Your task to perform on an android device: What's on my calendar tomorrow? Image 0: 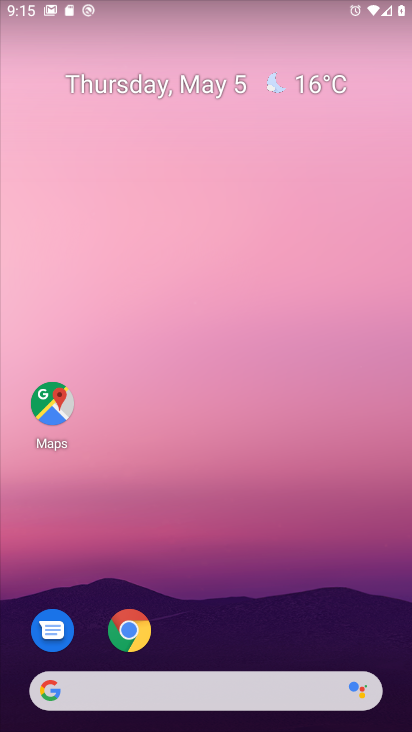
Step 0: drag from (254, 614) to (163, 142)
Your task to perform on an android device: What's on my calendar tomorrow? Image 1: 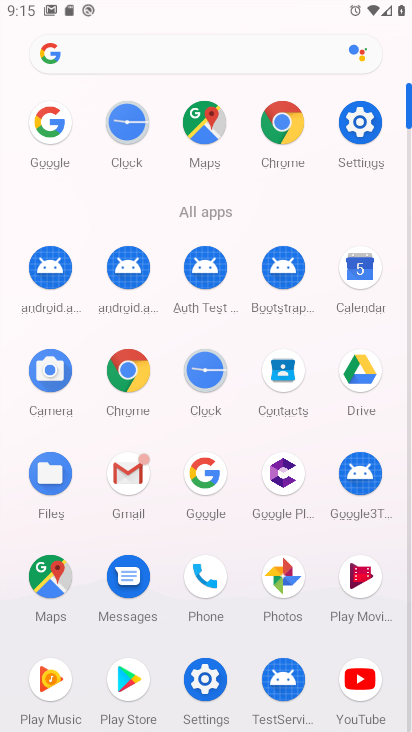
Step 1: click (367, 268)
Your task to perform on an android device: What's on my calendar tomorrow? Image 2: 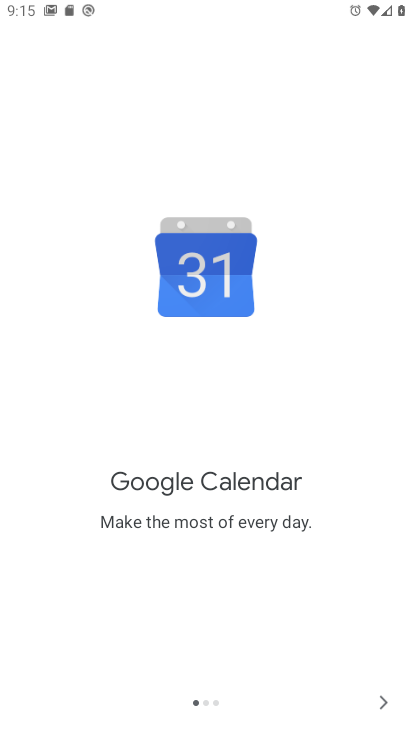
Step 2: click (377, 698)
Your task to perform on an android device: What's on my calendar tomorrow? Image 3: 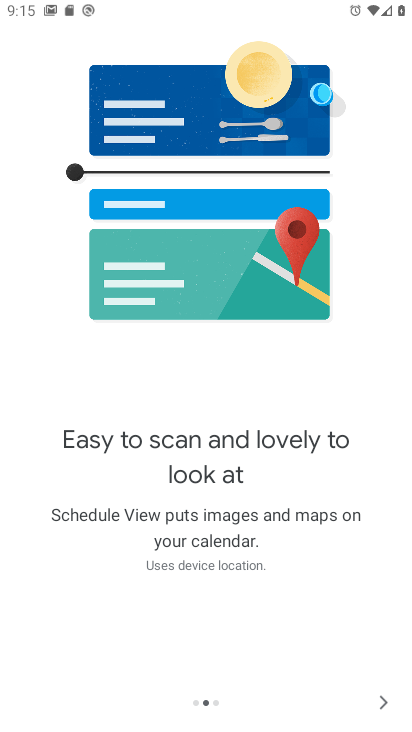
Step 3: click (377, 695)
Your task to perform on an android device: What's on my calendar tomorrow? Image 4: 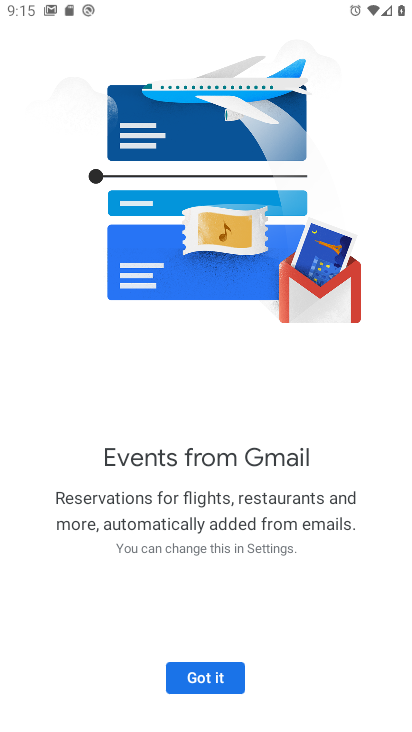
Step 4: click (185, 680)
Your task to perform on an android device: What's on my calendar tomorrow? Image 5: 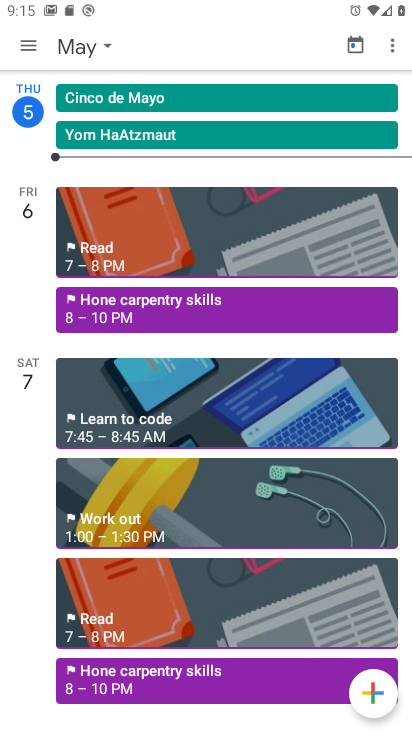
Step 5: click (93, 47)
Your task to perform on an android device: What's on my calendar tomorrow? Image 6: 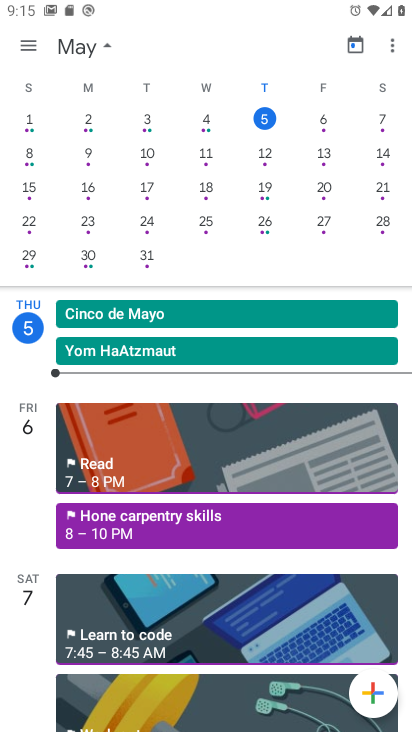
Step 6: click (321, 130)
Your task to perform on an android device: What's on my calendar tomorrow? Image 7: 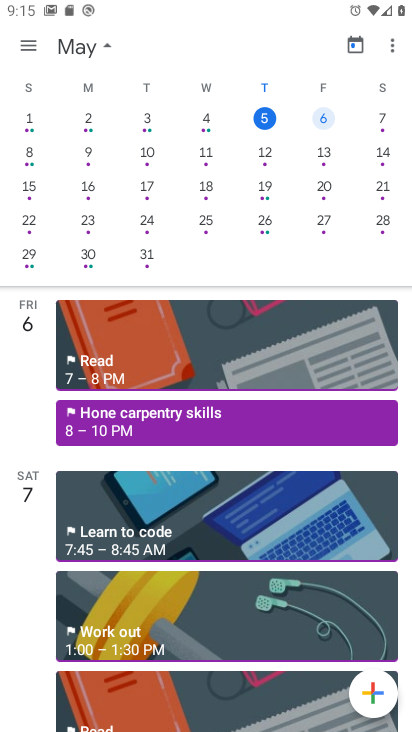
Step 7: task complete